Your task to perform on an android device: Go to display settings Image 0: 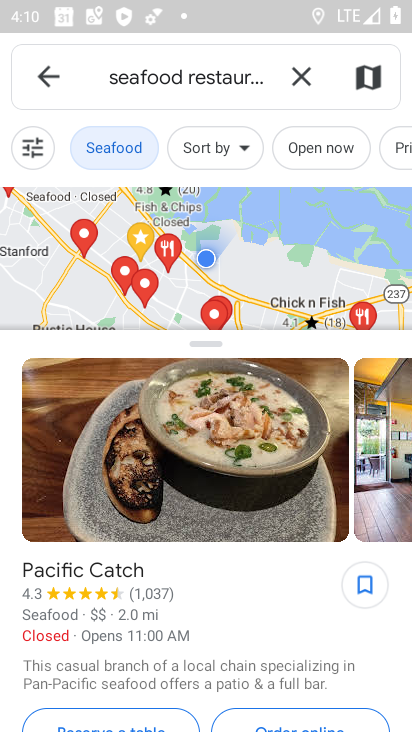
Step 0: press home button
Your task to perform on an android device: Go to display settings Image 1: 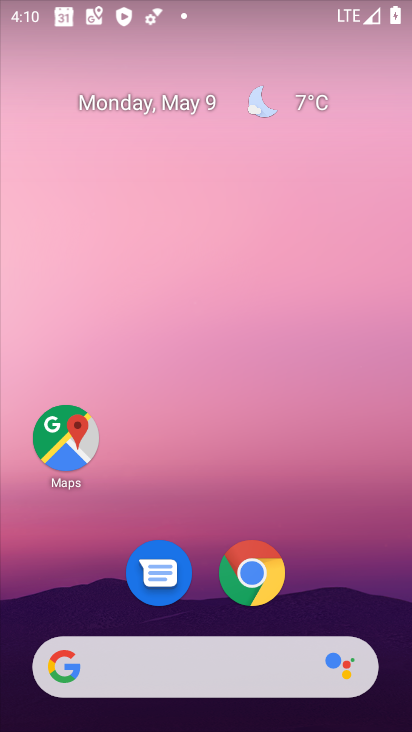
Step 1: drag from (383, 642) to (396, 77)
Your task to perform on an android device: Go to display settings Image 2: 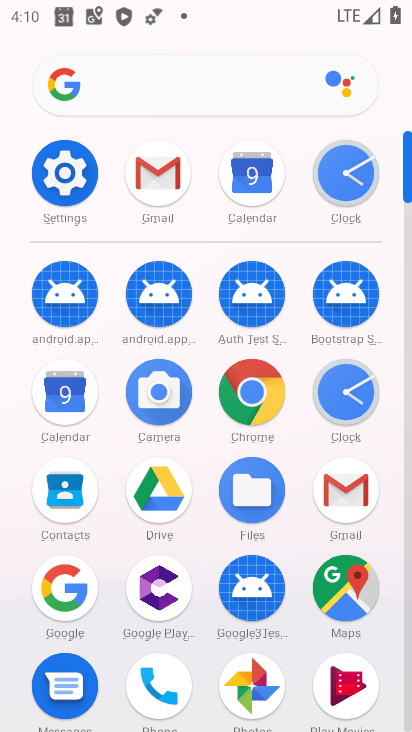
Step 2: click (70, 185)
Your task to perform on an android device: Go to display settings Image 3: 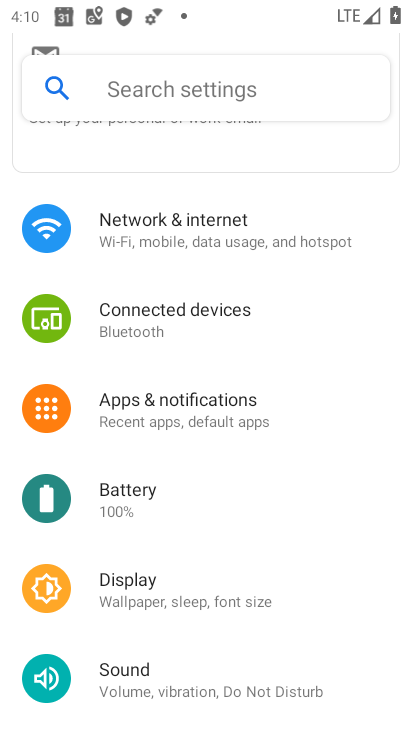
Step 3: click (133, 591)
Your task to perform on an android device: Go to display settings Image 4: 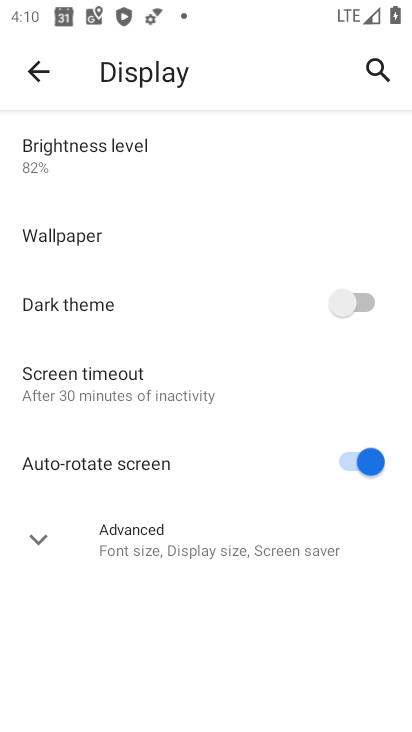
Step 4: click (38, 541)
Your task to perform on an android device: Go to display settings Image 5: 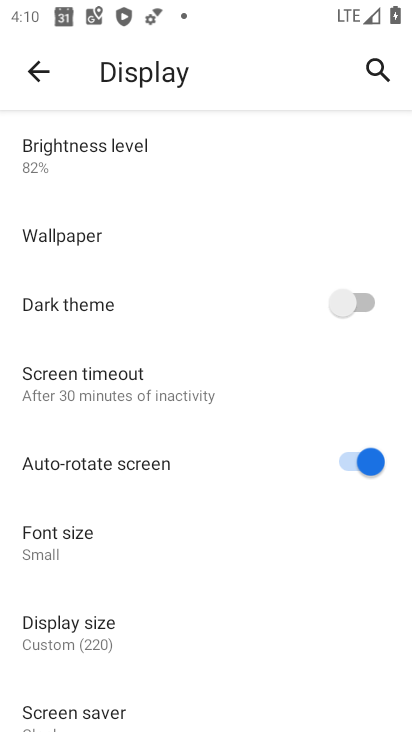
Step 5: task complete